Your task to perform on an android device: Open Yahoo.com Image 0: 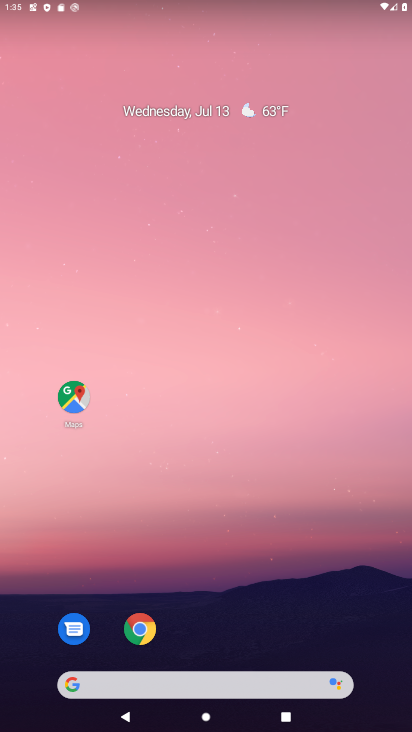
Step 0: drag from (198, 623) to (229, 246)
Your task to perform on an android device: Open Yahoo.com Image 1: 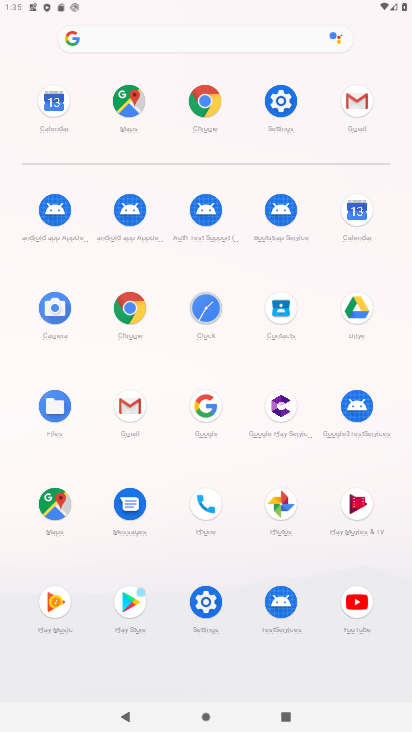
Step 1: click (146, 40)
Your task to perform on an android device: Open Yahoo.com Image 2: 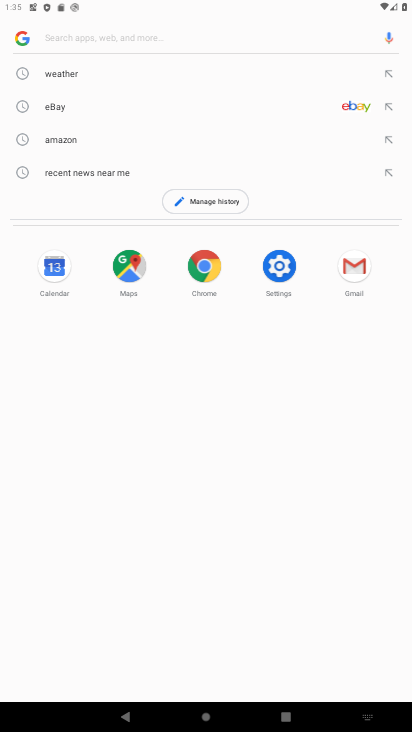
Step 2: type "yahoo"
Your task to perform on an android device: Open Yahoo.com Image 3: 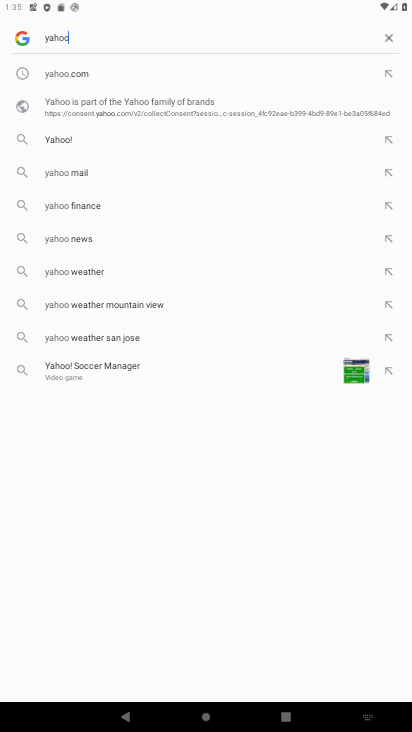
Step 3: click (60, 73)
Your task to perform on an android device: Open Yahoo.com Image 4: 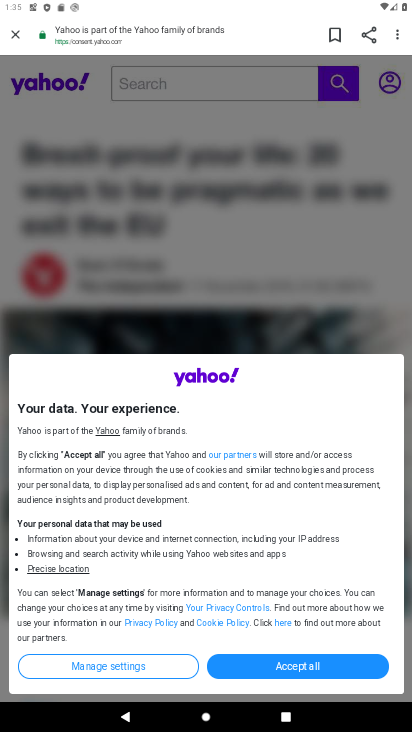
Step 4: task complete